Your task to perform on an android device: install app "HBO Max: Stream TV & Movies" Image 0: 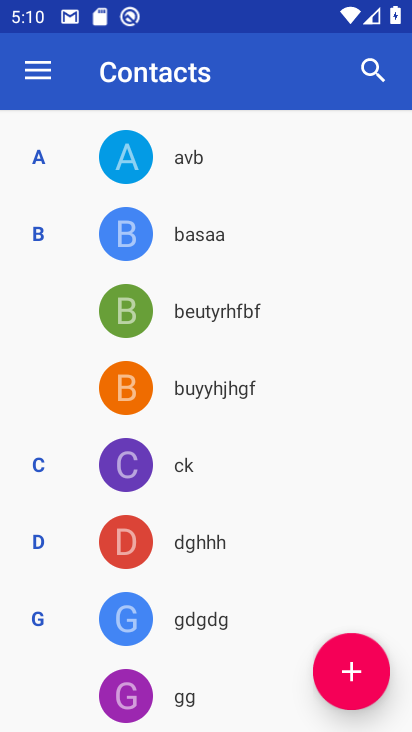
Step 0: press home button
Your task to perform on an android device: install app "HBO Max: Stream TV & Movies" Image 1: 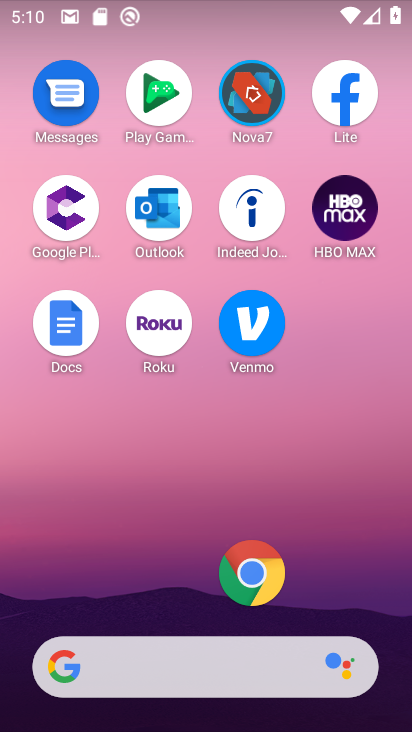
Step 1: drag from (176, 391) to (54, 6)
Your task to perform on an android device: install app "HBO Max: Stream TV & Movies" Image 2: 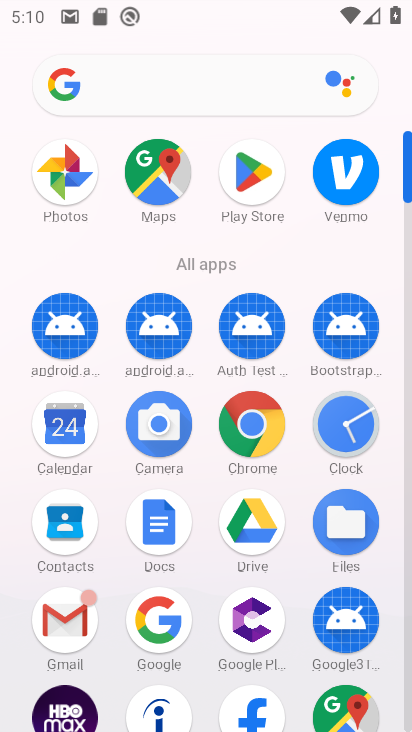
Step 2: click (249, 175)
Your task to perform on an android device: install app "HBO Max: Stream TV & Movies" Image 3: 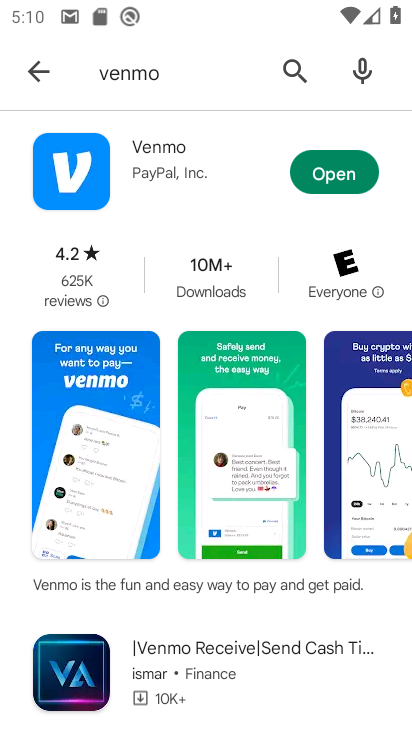
Step 3: click (40, 72)
Your task to perform on an android device: install app "HBO Max: Stream TV & Movies" Image 4: 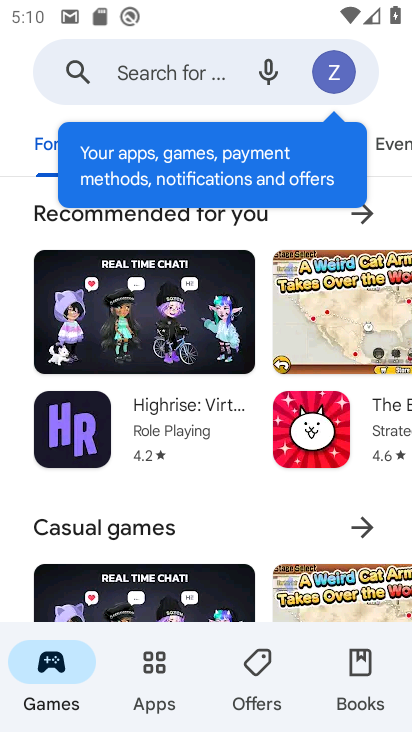
Step 4: click (159, 79)
Your task to perform on an android device: install app "HBO Max: Stream TV & Movies" Image 5: 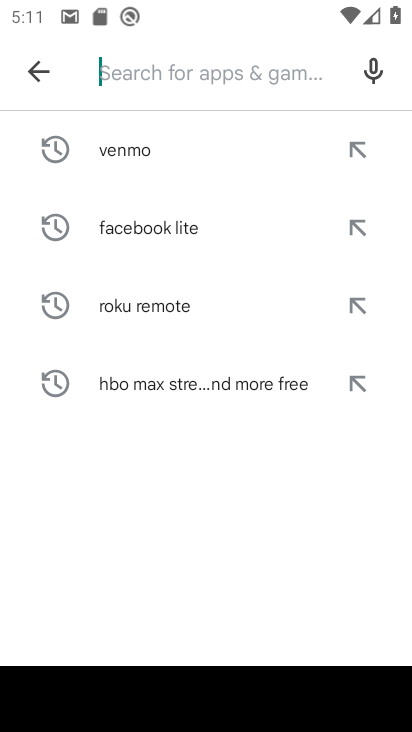
Step 5: type "HBO Max: Stream TV & Movies"
Your task to perform on an android device: install app "HBO Max: Stream TV & Movies" Image 6: 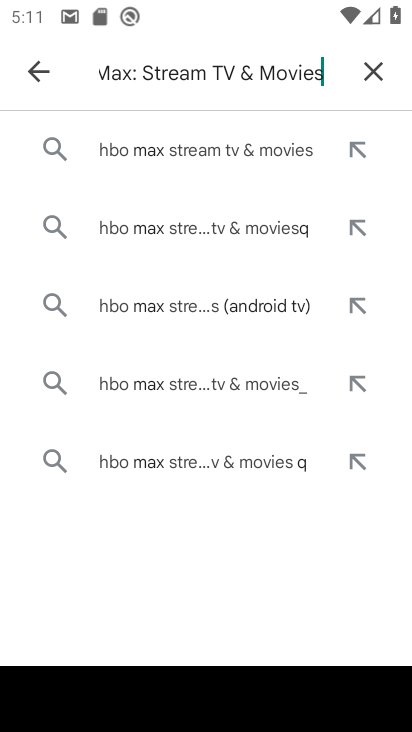
Step 6: click (141, 146)
Your task to perform on an android device: install app "HBO Max: Stream TV & Movies" Image 7: 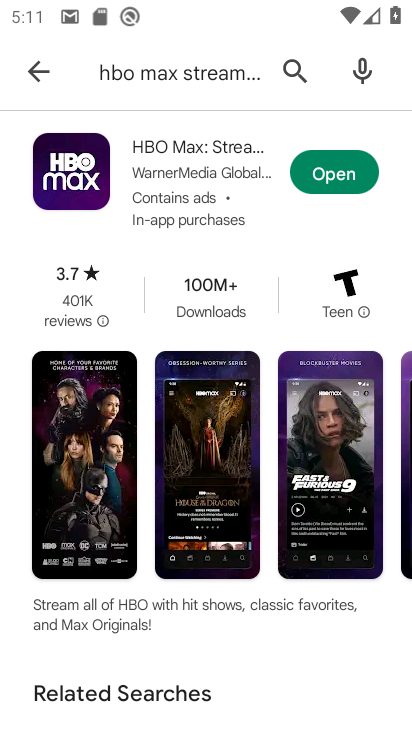
Step 7: click (308, 178)
Your task to perform on an android device: install app "HBO Max: Stream TV & Movies" Image 8: 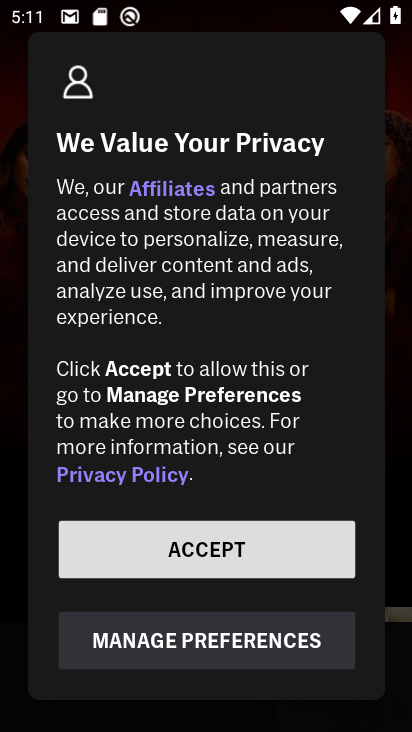
Step 8: task complete